Your task to perform on an android device: Open Google Image 0: 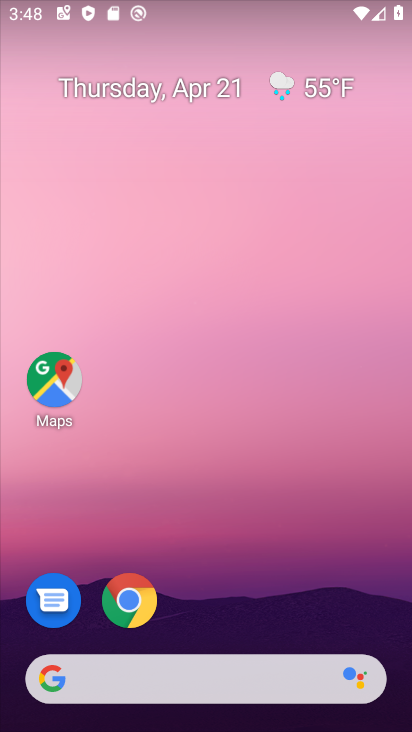
Step 0: drag from (178, 635) to (252, 151)
Your task to perform on an android device: Open Google Image 1: 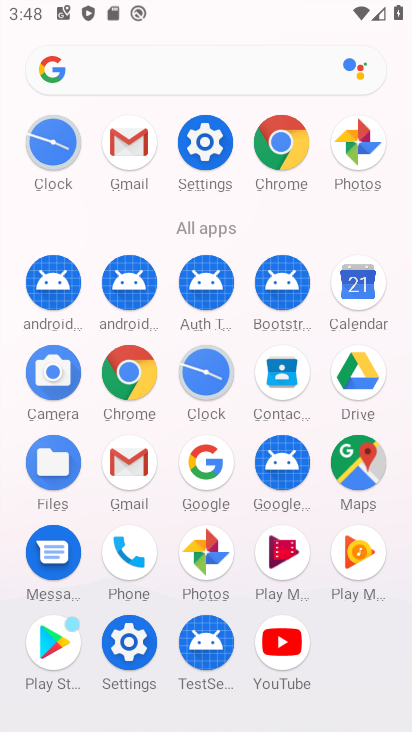
Step 1: click (208, 471)
Your task to perform on an android device: Open Google Image 2: 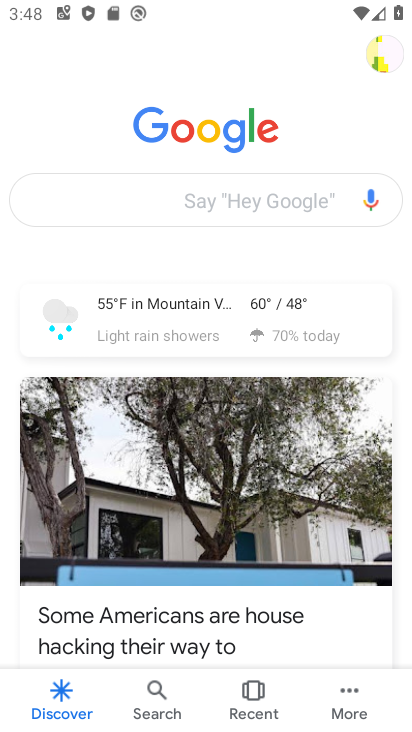
Step 2: task complete